Your task to perform on an android device: Open Google Chrome Image 0: 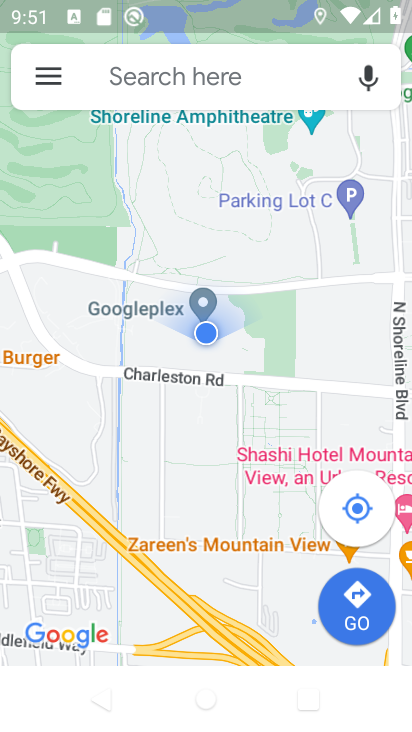
Step 0: press home button
Your task to perform on an android device: Open Google Chrome Image 1: 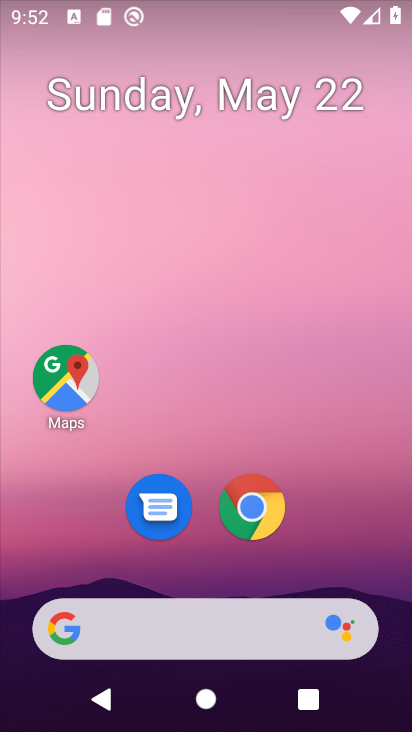
Step 1: click (253, 515)
Your task to perform on an android device: Open Google Chrome Image 2: 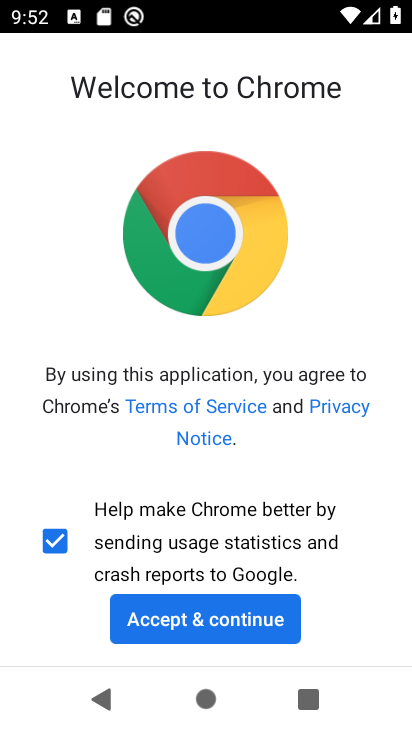
Step 2: task complete